Your task to perform on an android device: Open calendar and show me the second week of next month Image 0: 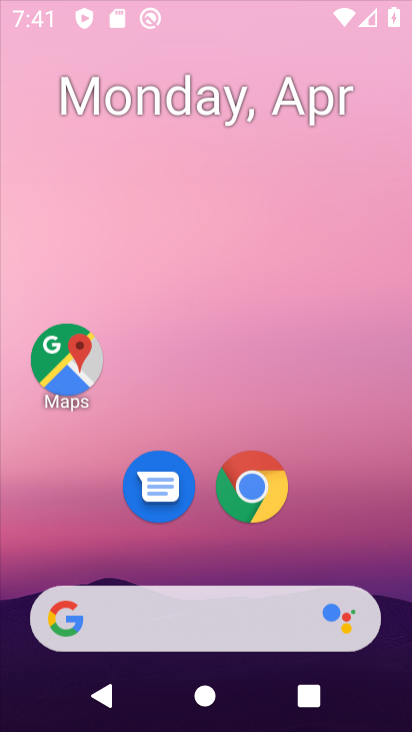
Step 0: click (303, 19)
Your task to perform on an android device: Open calendar and show me the second week of next month Image 1: 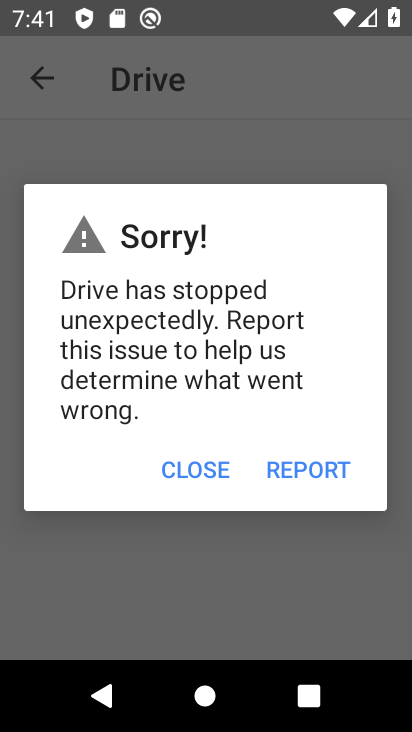
Step 1: press home button
Your task to perform on an android device: Open calendar and show me the second week of next month Image 2: 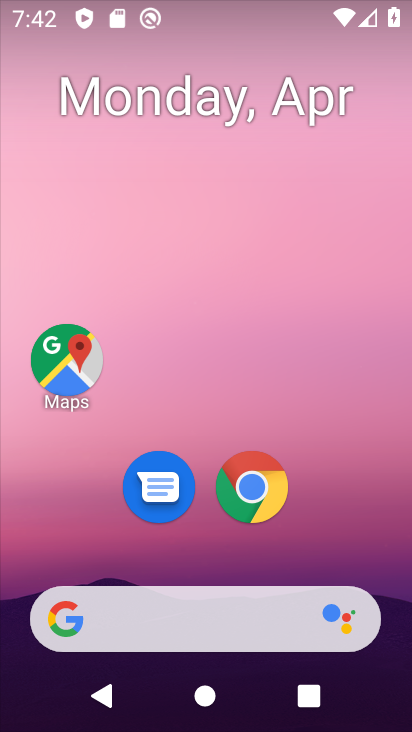
Step 2: drag from (295, 298) to (295, 23)
Your task to perform on an android device: Open calendar and show me the second week of next month Image 3: 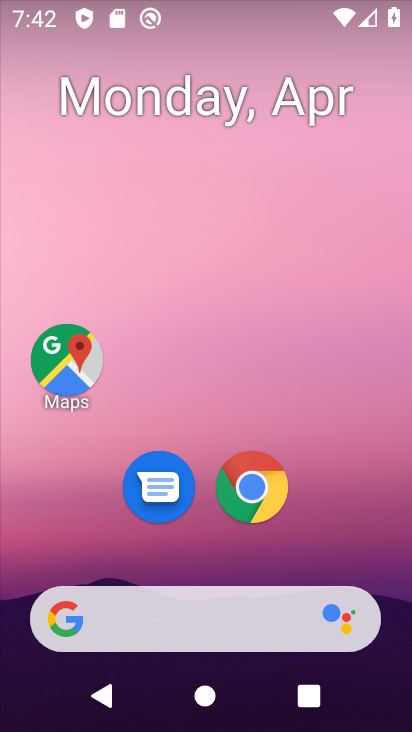
Step 3: drag from (307, 545) to (300, 20)
Your task to perform on an android device: Open calendar and show me the second week of next month Image 4: 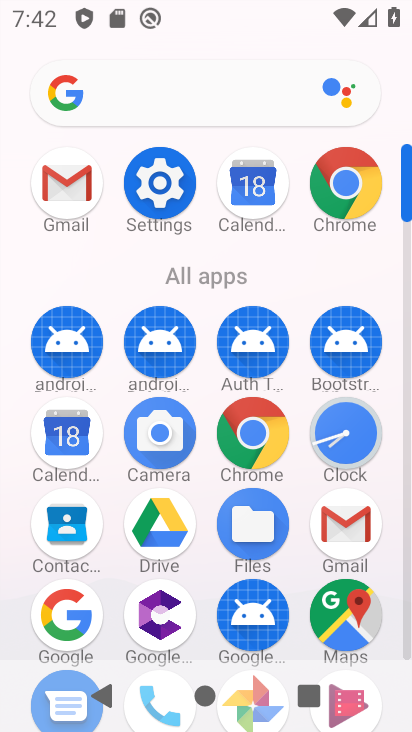
Step 4: drag from (203, 482) to (215, 45)
Your task to perform on an android device: Open calendar and show me the second week of next month Image 5: 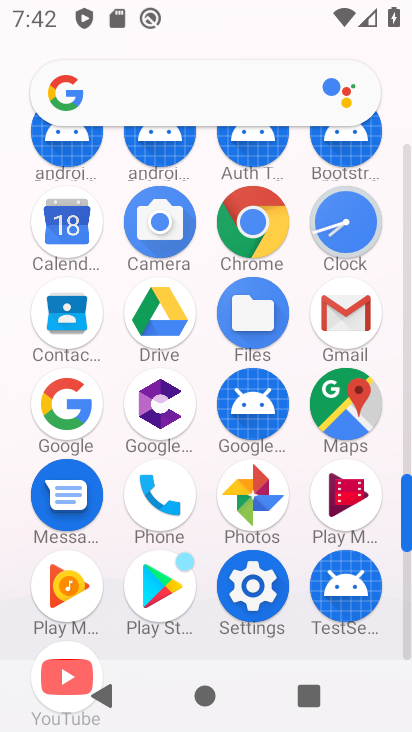
Step 5: click (64, 235)
Your task to perform on an android device: Open calendar and show me the second week of next month Image 6: 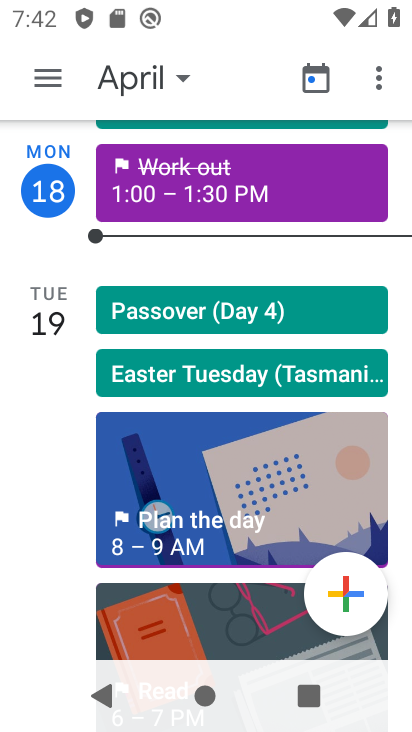
Step 6: click (181, 74)
Your task to perform on an android device: Open calendar and show me the second week of next month Image 7: 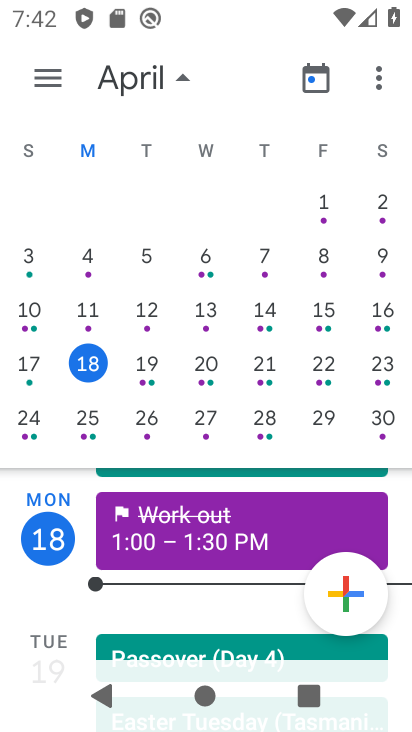
Step 7: drag from (331, 340) to (5, 356)
Your task to perform on an android device: Open calendar and show me the second week of next month Image 8: 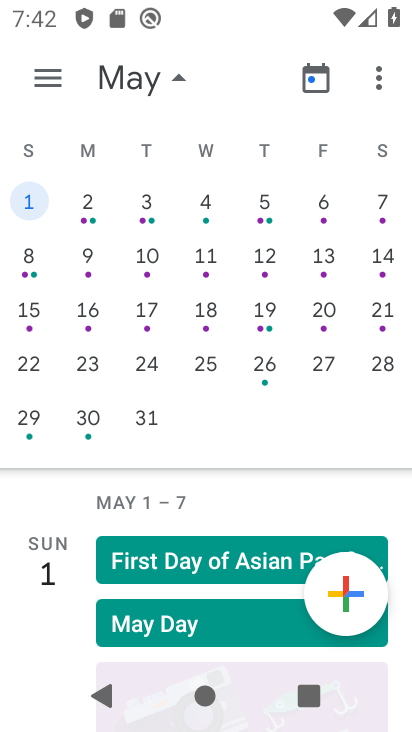
Step 8: click (147, 254)
Your task to perform on an android device: Open calendar and show me the second week of next month Image 9: 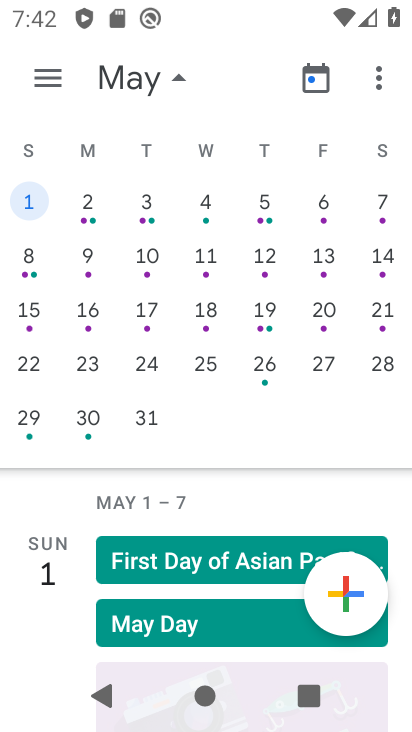
Step 9: click (146, 249)
Your task to perform on an android device: Open calendar and show me the second week of next month Image 10: 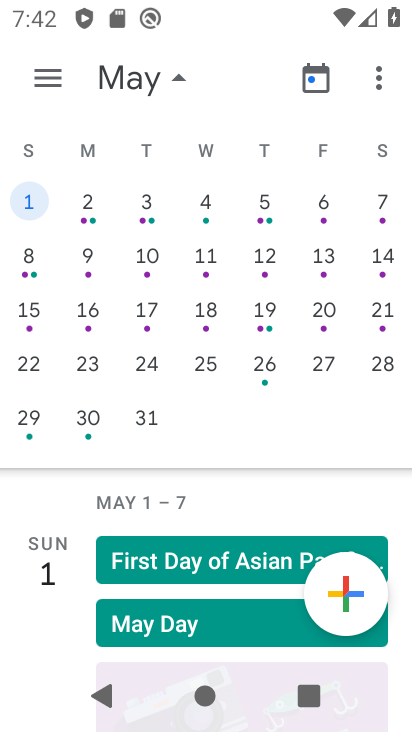
Step 10: click (149, 261)
Your task to perform on an android device: Open calendar and show me the second week of next month Image 11: 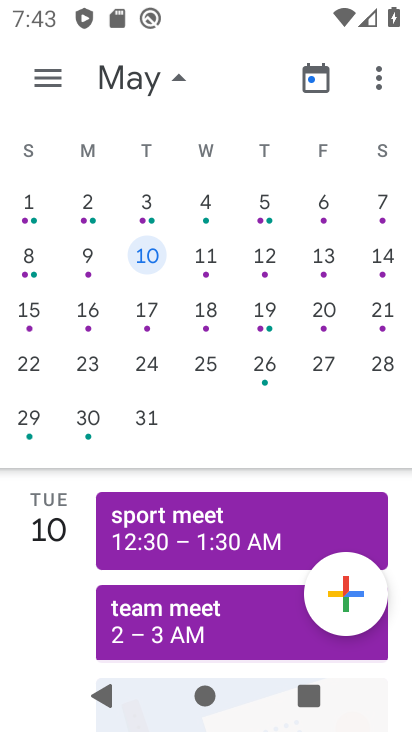
Step 11: task complete